Your task to perform on an android device: turn on the 12-hour format for clock Image 0: 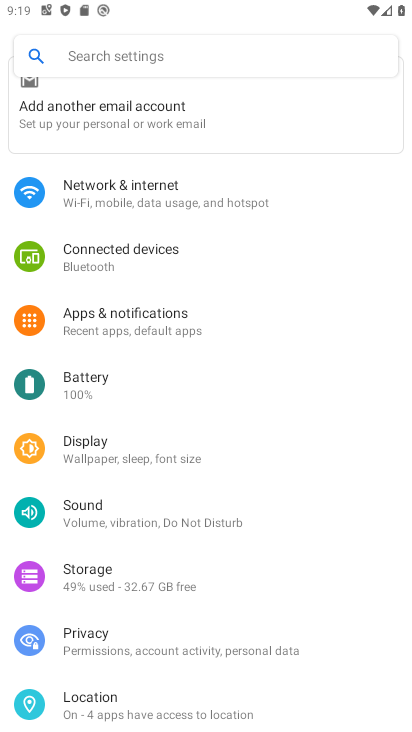
Step 0: press home button
Your task to perform on an android device: turn on the 12-hour format for clock Image 1: 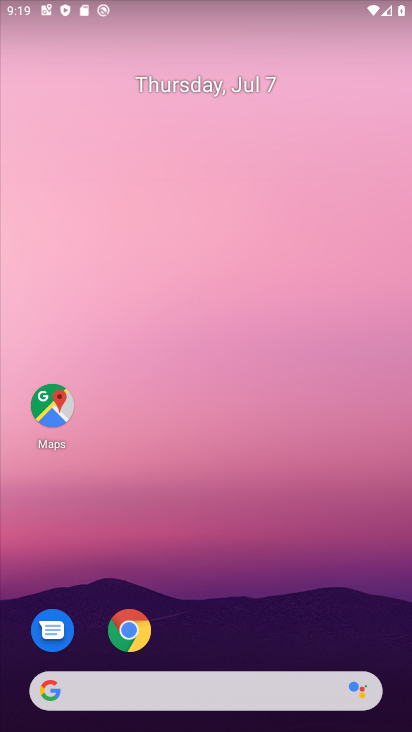
Step 1: drag from (152, 660) to (194, 335)
Your task to perform on an android device: turn on the 12-hour format for clock Image 2: 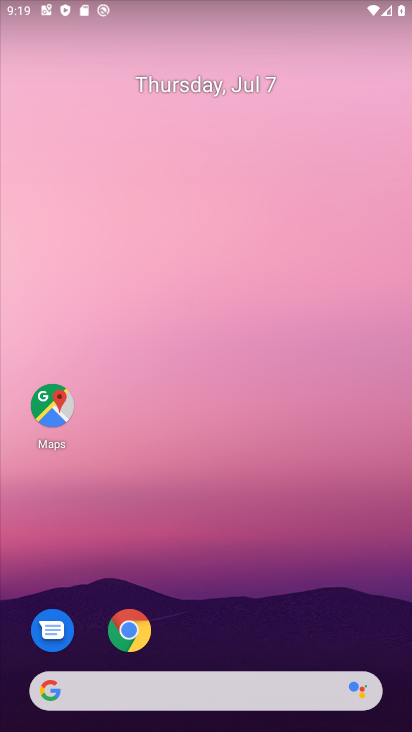
Step 2: drag from (192, 579) to (192, 290)
Your task to perform on an android device: turn on the 12-hour format for clock Image 3: 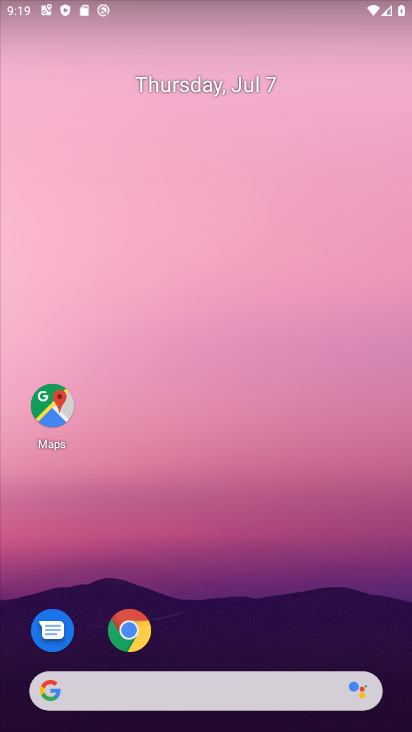
Step 3: drag from (158, 675) to (177, 374)
Your task to perform on an android device: turn on the 12-hour format for clock Image 4: 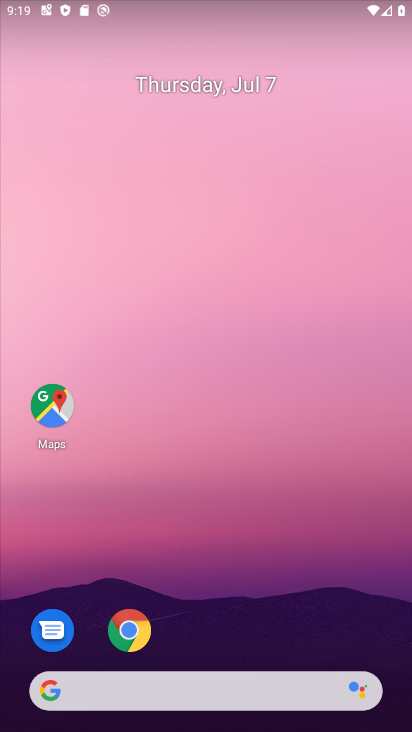
Step 4: drag from (187, 670) to (222, 350)
Your task to perform on an android device: turn on the 12-hour format for clock Image 5: 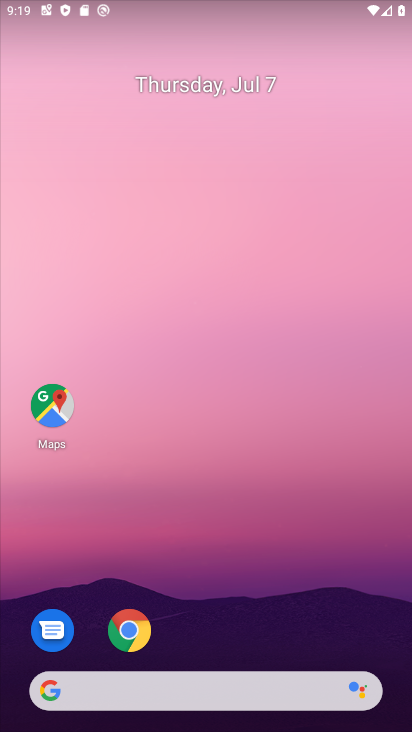
Step 5: drag from (271, 578) to (265, 331)
Your task to perform on an android device: turn on the 12-hour format for clock Image 6: 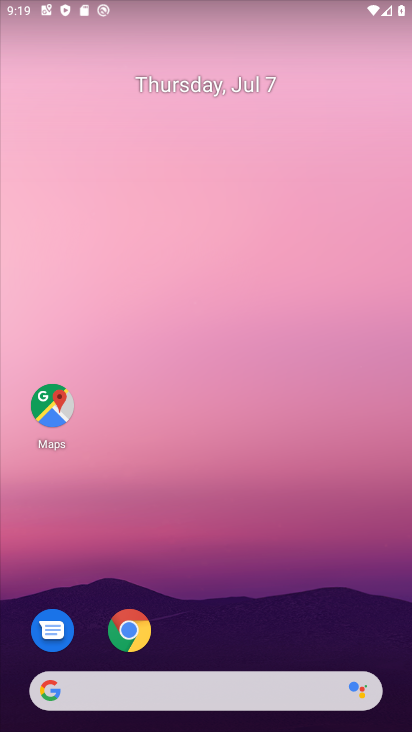
Step 6: drag from (204, 676) to (203, 272)
Your task to perform on an android device: turn on the 12-hour format for clock Image 7: 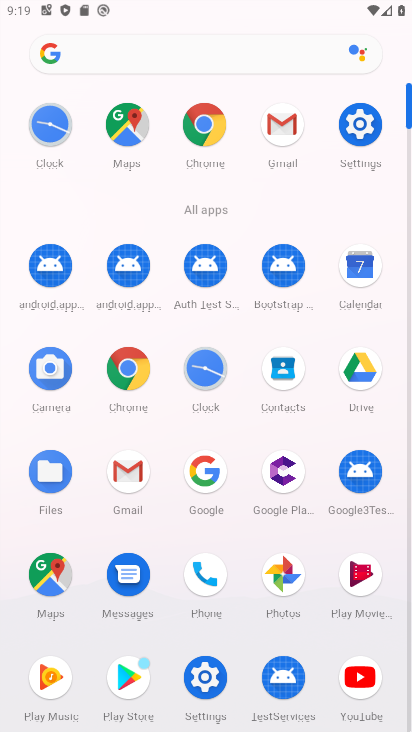
Step 7: click (198, 373)
Your task to perform on an android device: turn on the 12-hour format for clock Image 8: 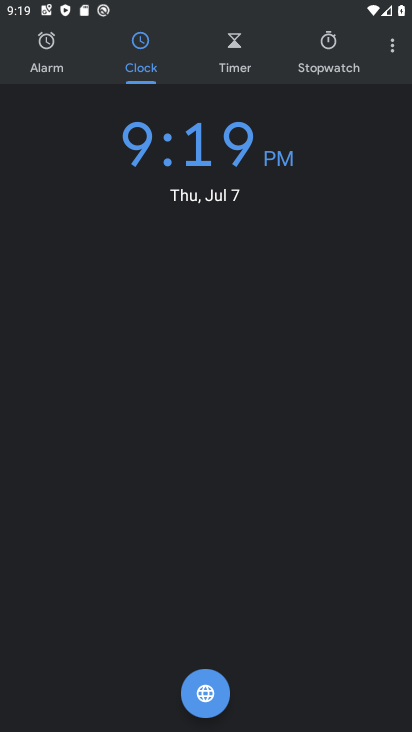
Step 8: click (387, 44)
Your task to perform on an android device: turn on the 12-hour format for clock Image 9: 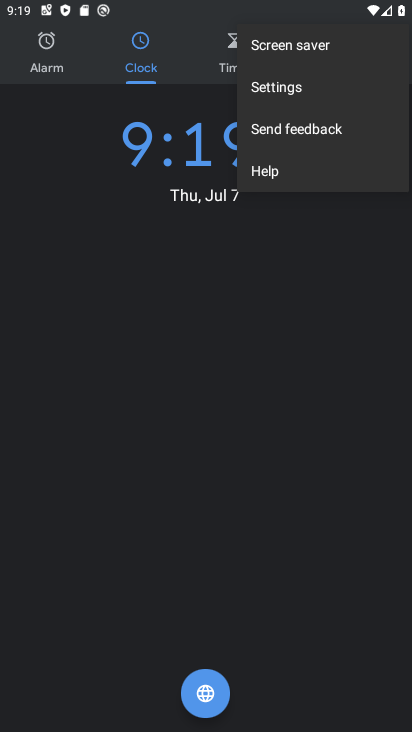
Step 9: click (270, 93)
Your task to perform on an android device: turn on the 12-hour format for clock Image 10: 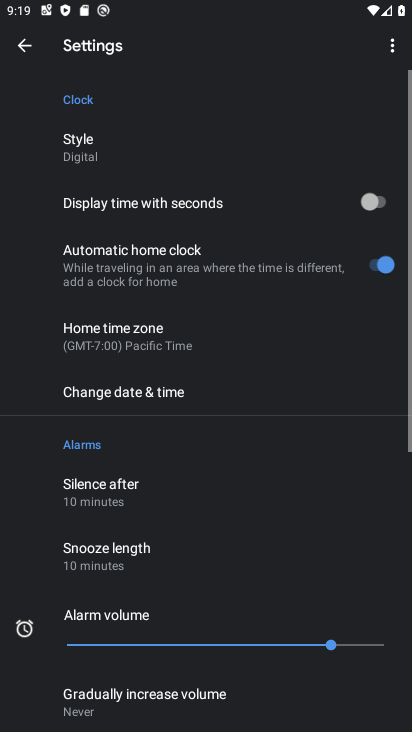
Step 10: click (156, 401)
Your task to perform on an android device: turn on the 12-hour format for clock Image 11: 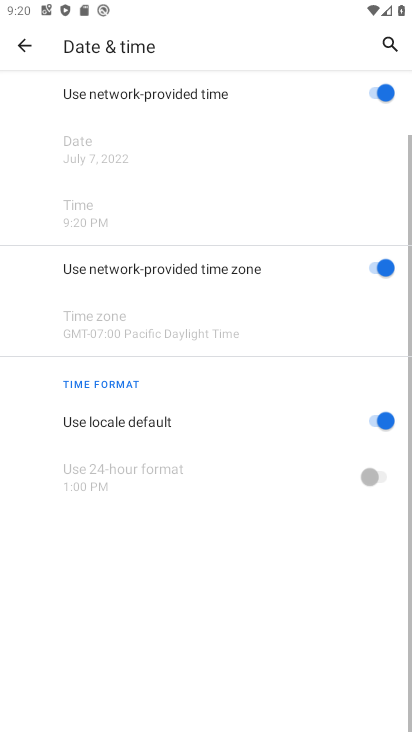
Step 11: task complete